Your task to perform on an android device: Go to display settings Image 0: 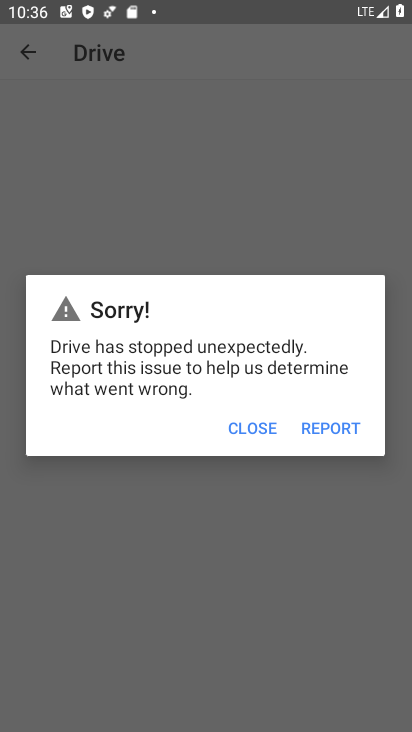
Step 0: press home button
Your task to perform on an android device: Go to display settings Image 1: 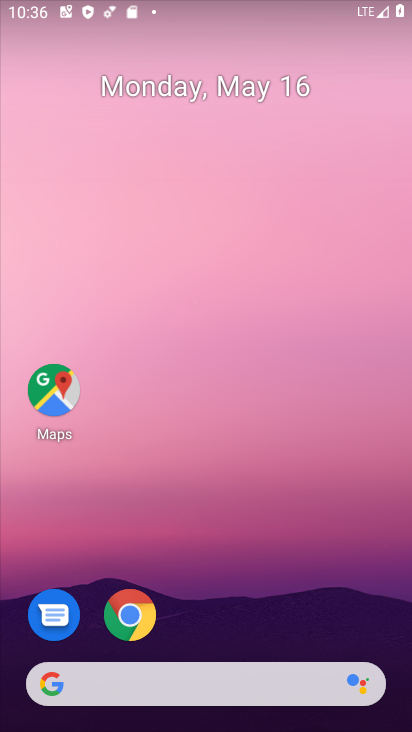
Step 1: drag from (205, 641) to (323, 182)
Your task to perform on an android device: Go to display settings Image 2: 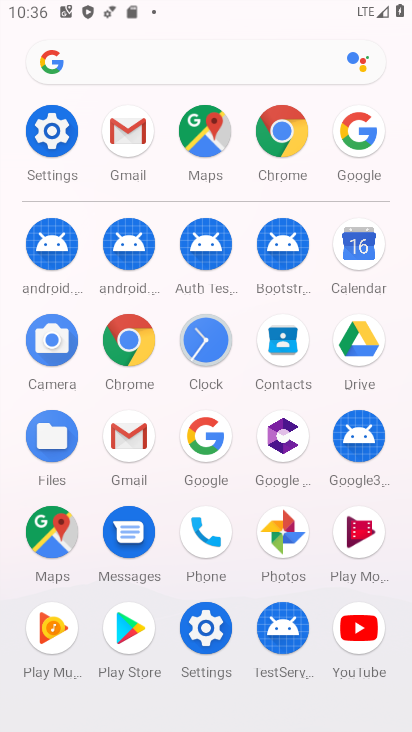
Step 2: click (51, 150)
Your task to perform on an android device: Go to display settings Image 3: 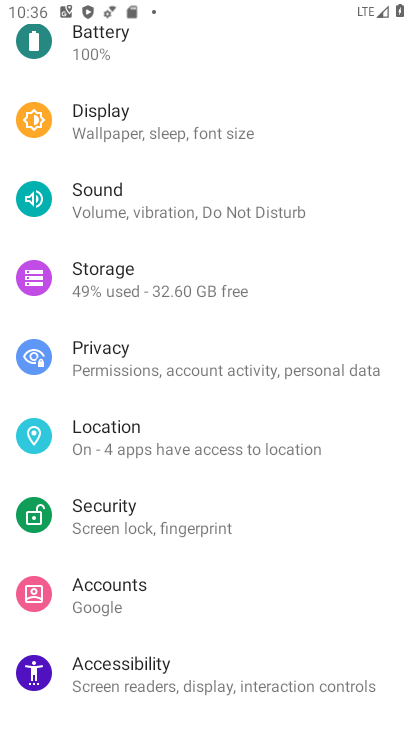
Step 3: drag from (122, 321) to (94, 517)
Your task to perform on an android device: Go to display settings Image 4: 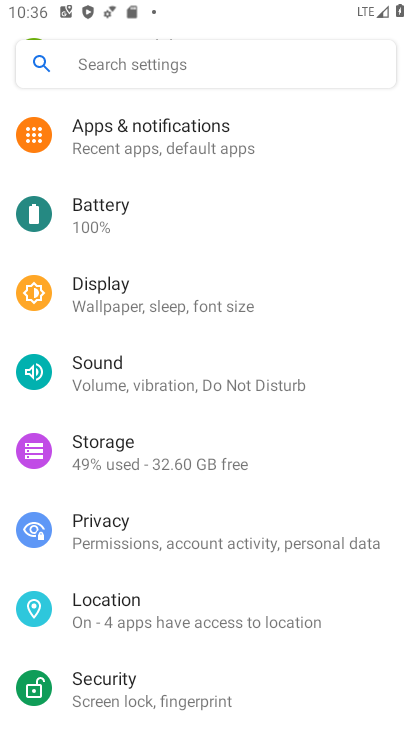
Step 4: click (153, 295)
Your task to perform on an android device: Go to display settings Image 5: 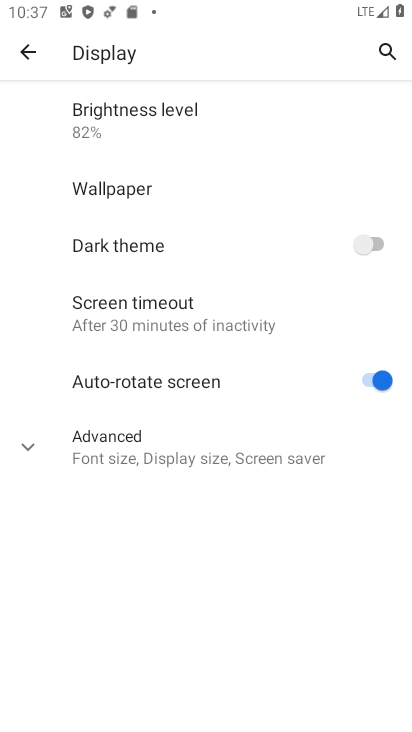
Step 5: click (113, 445)
Your task to perform on an android device: Go to display settings Image 6: 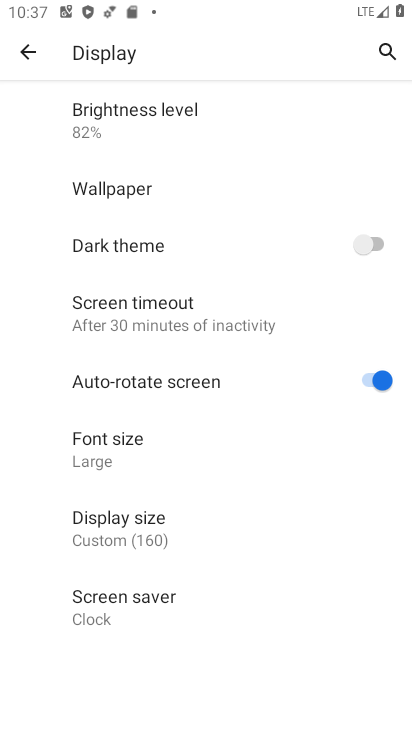
Step 6: task complete